Your task to perform on an android device: turn on notifications settings in the gmail app Image 0: 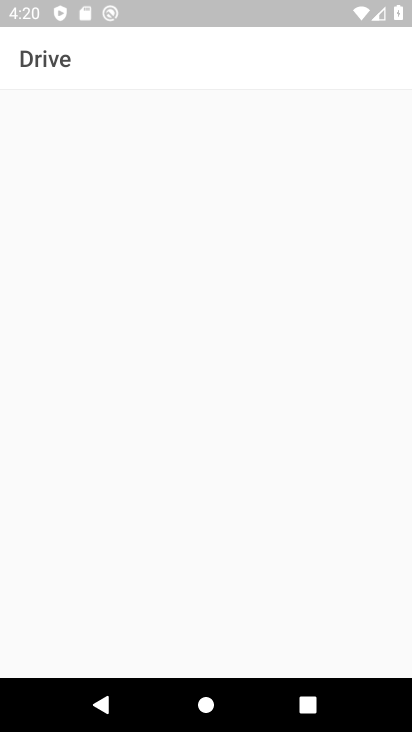
Step 0: press home button
Your task to perform on an android device: turn on notifications settings in the gmail app Image 1: 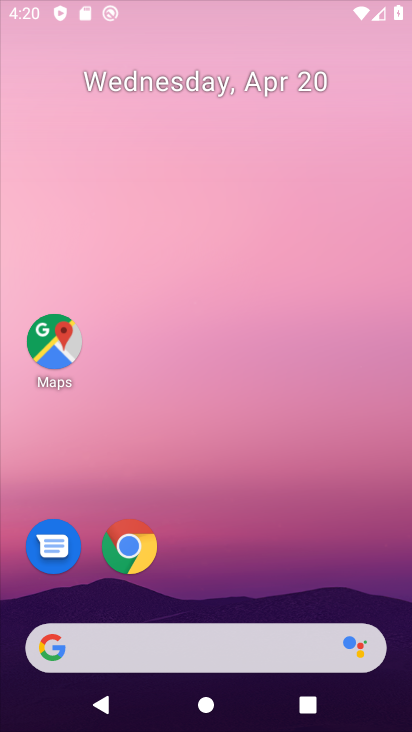
Step 1: drag from (231, 504) to (234, 159)
Your task to perform on an android device: turn on notifications settings in the gmail app Image 2: 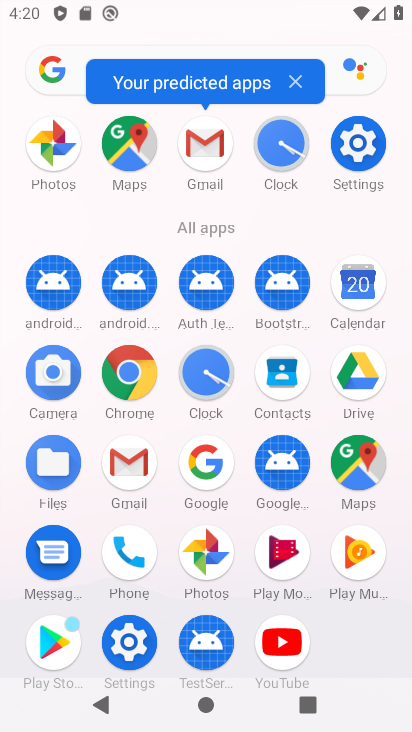
Step 2: click (210, 163)
Your task to perform on an android device: turn on notifications settings in the gmail app Image 3: 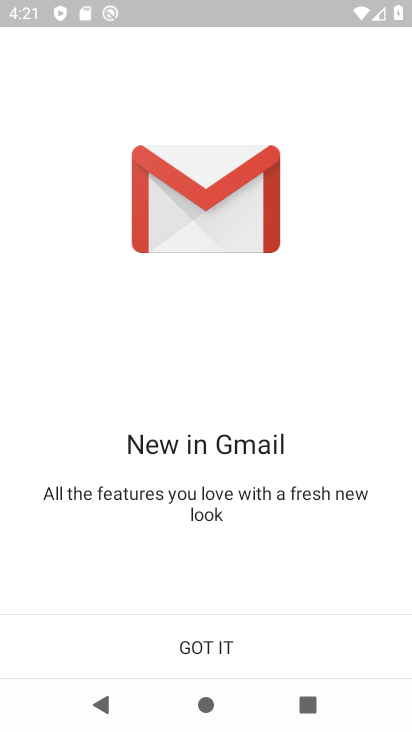
Step 3: click (184, 640)
Your task to perform on an android device: turn on notifications settings in the gmail app Image 4: 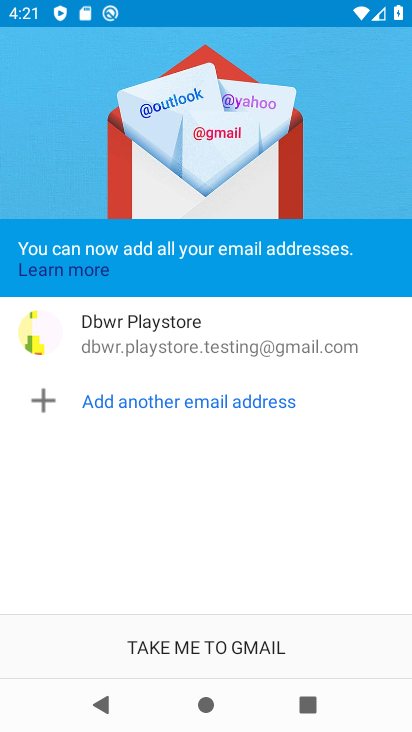
Step 4: click (183, 648)
Your task to perform on an android device: turn on notifications settings in the gmail app Image 5: 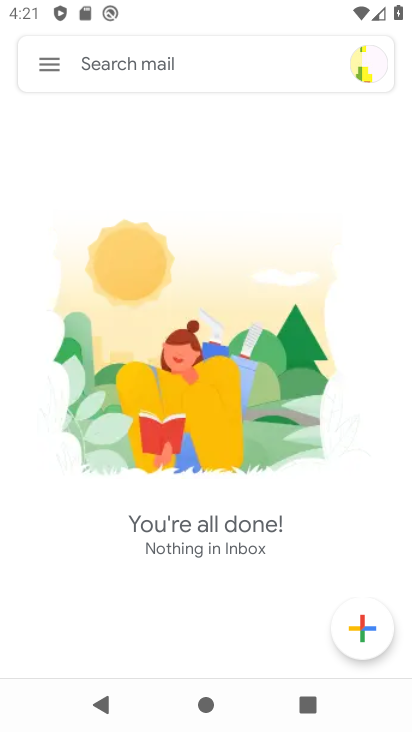
Step 5: click (47, 63)
Your task to perform on an android device: turn on notifications settings in the gmail app Image 6: 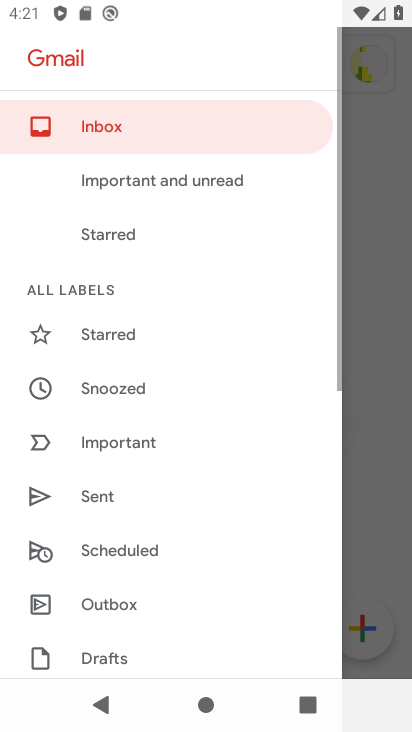
Step 6: drag from (144, 525) to (143, 242)
Your task to perform on an android device: turn on notifications settings in the gmail app Image 7: 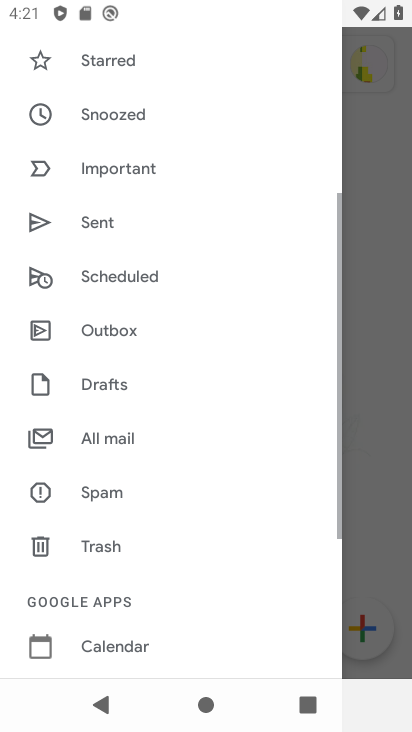
Step 7: drag from (165, 552) to (167, 293)
Your task to perform on an android device: turn on notifications settings in the gmail app Image 8: 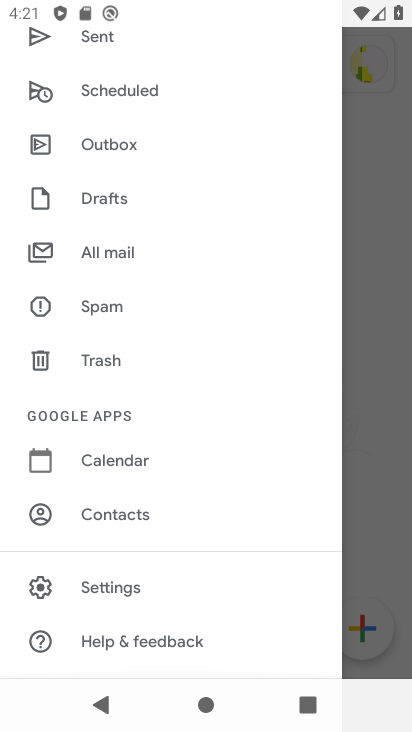
Step 8: click (106, 594)
Your task to perform on an android device: turn on notifications settings in the gmail app Image 9: 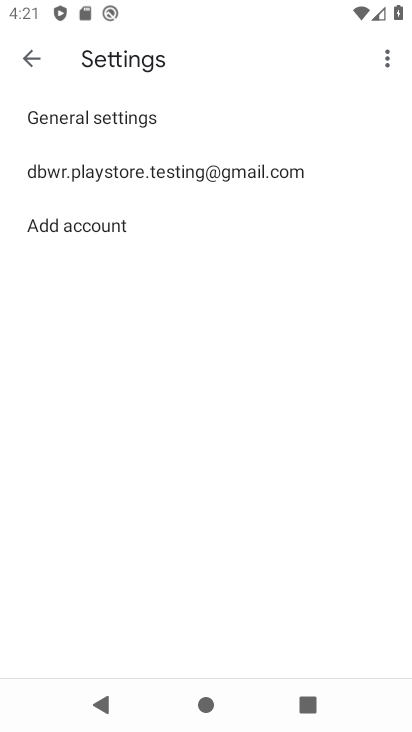
Step 9: click (107, 169)
Your task to perform on an android device: turn on notifications settings in the gmail app Image 10: 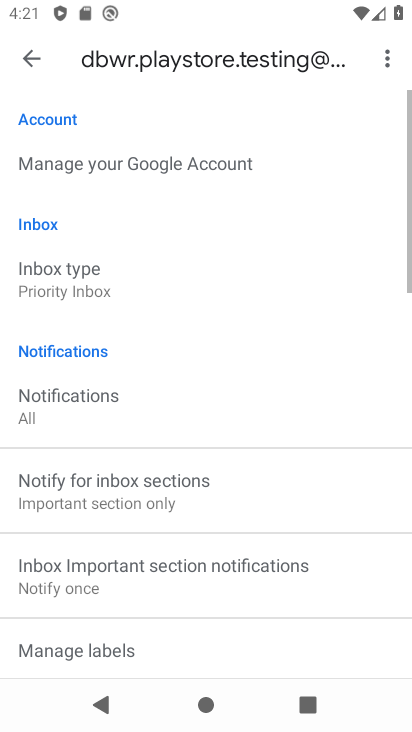
Step 10: click (85, 411)
Your task to perform on an android device: turn on notifications settings in the gmail app Image 11: 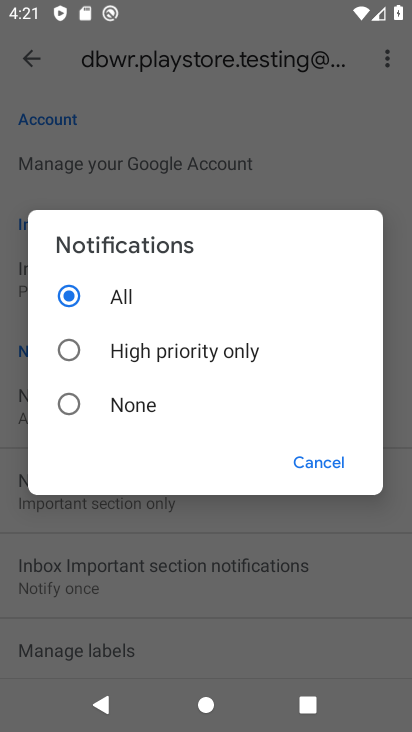
Step 11: click (202, 357)
Your task to perform on an android device: turn on notifications settings in the gmail app Image 12: 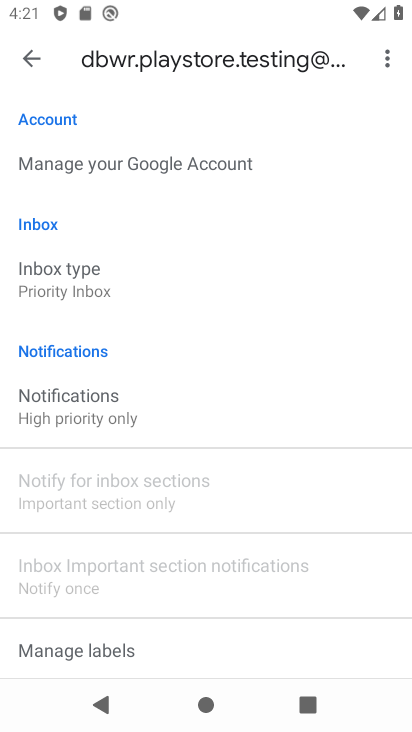
Step 12: task complete